Your task to perform on an android device: Open settings on Google Maps Image 0: 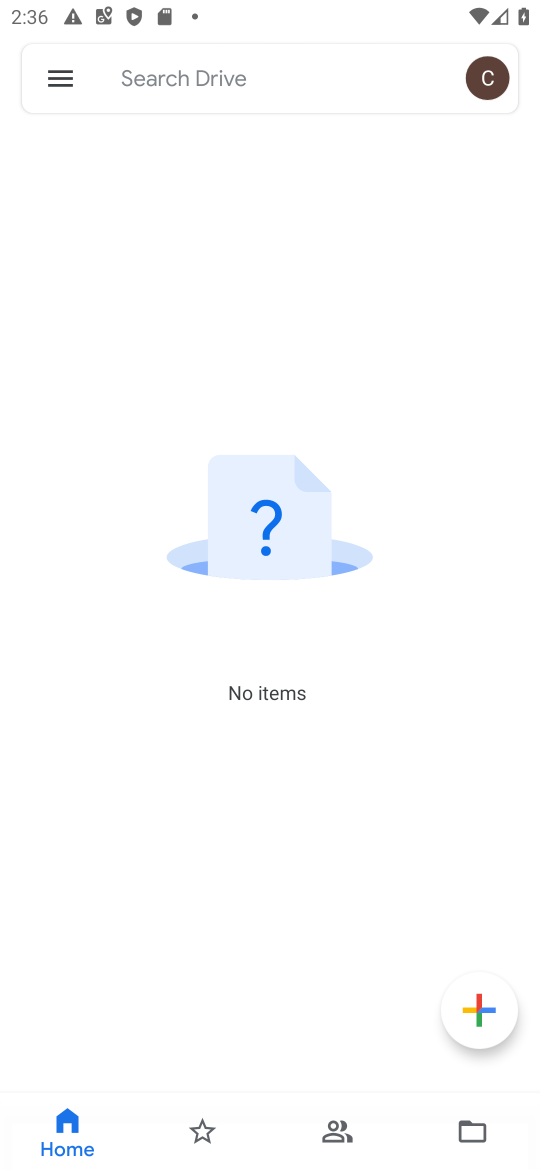
Step 0: press home button
Your task to perform on an android device: Open settings on Google Maps Image 1: 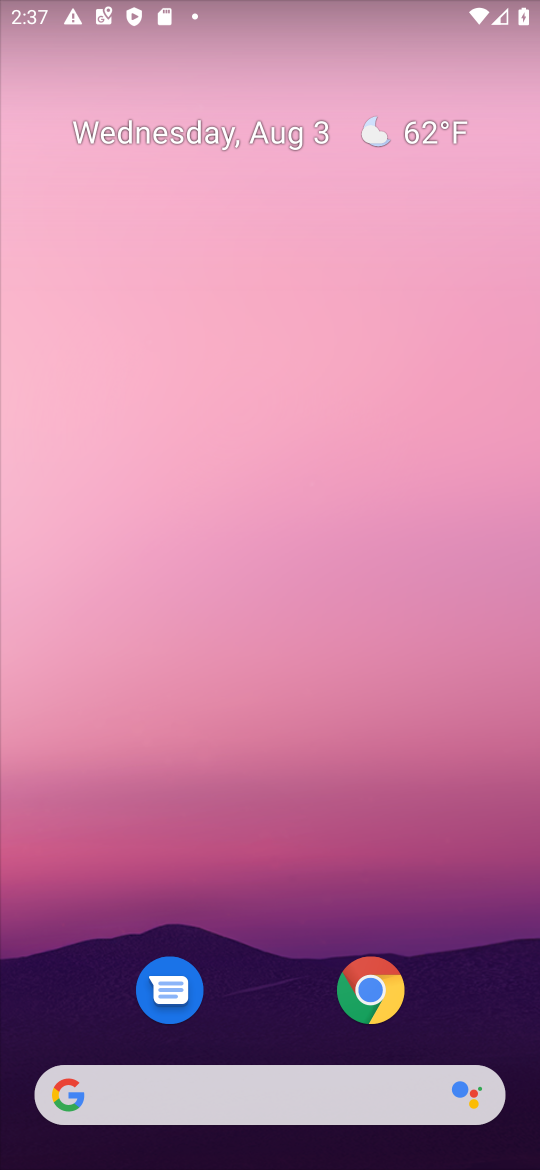
Step 1: drag from (226, 878) to (279, 446)
Your task to perform on an android device: Open settings on Google Maps Image 2: 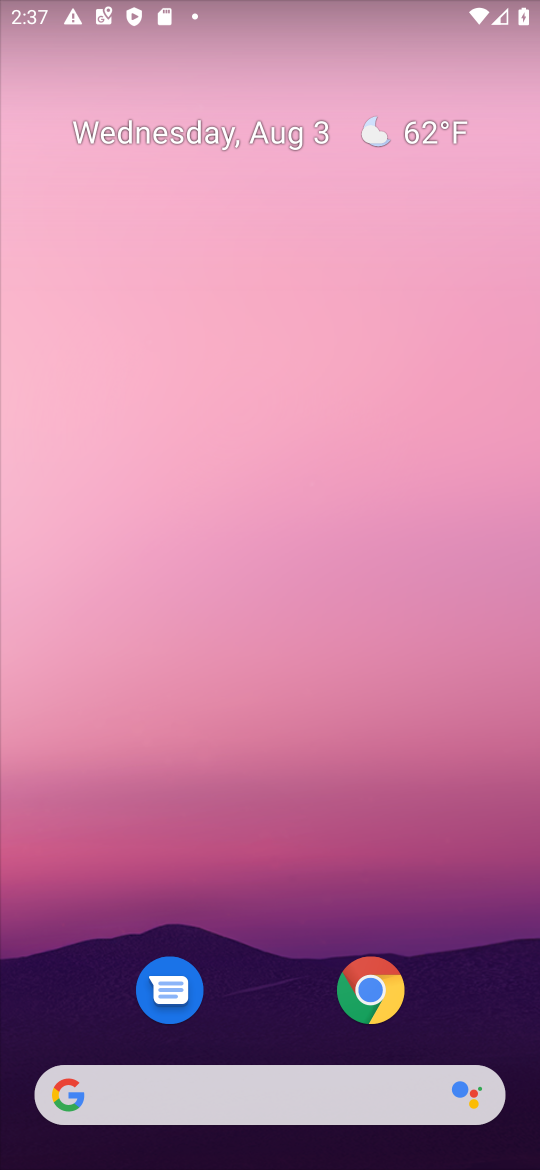
Step 2: drag from (270, 1038) to (354, 435)
Your task to perform on an android device: Open settings on Google Maps Image 3: 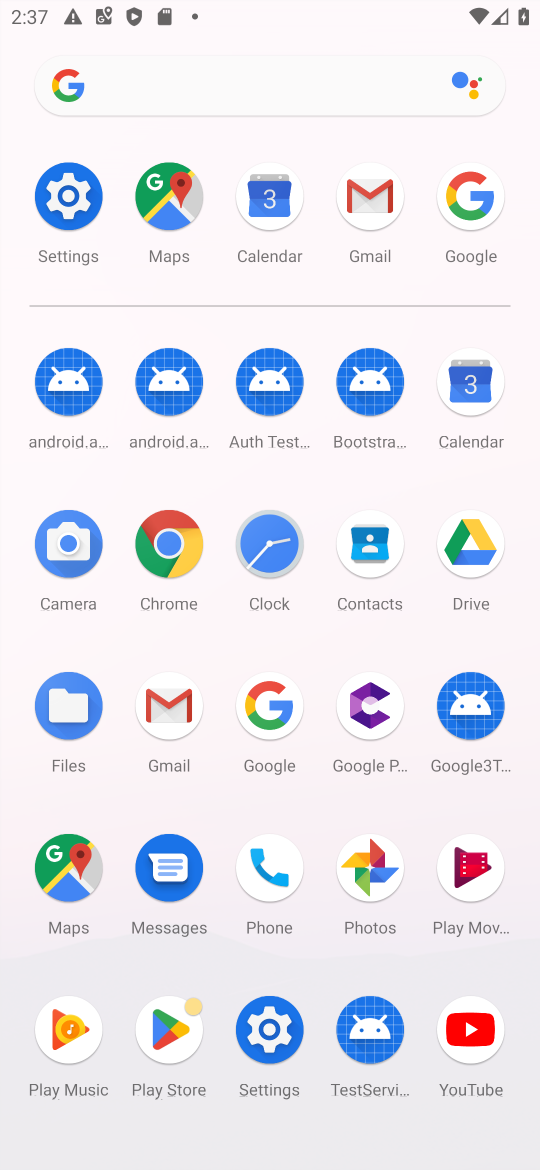
Step 3: click (380, 872)
Your task to perform on an android device: Open settings on Google Maps Image 4: 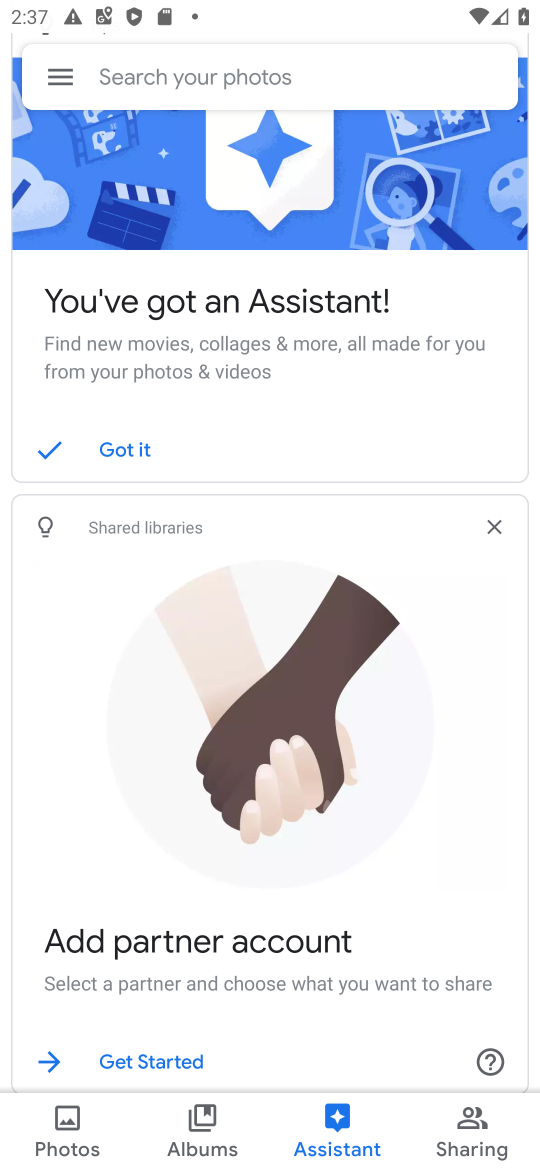
Step 4: click (55, 79)
Your task to perform on an android device: Open settings on Google Maps Image 5: 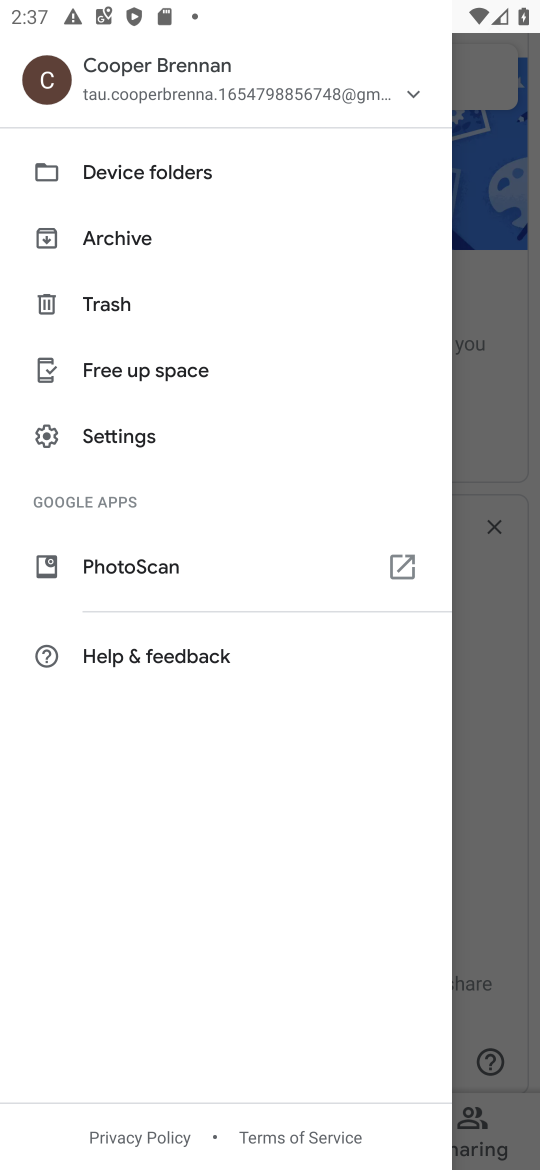
Step 5: click (117, 433)
Your task to perform on an android device: Open settings on Google Maps Image 6: 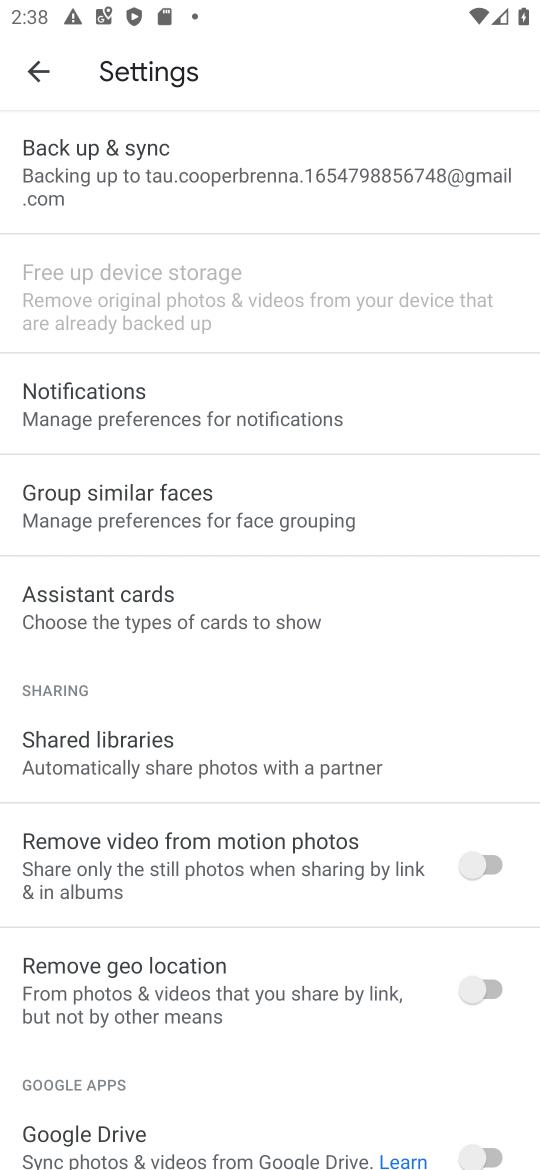
Step 6: task complete